Your task to perform on an android device: Go to settings Image 0: 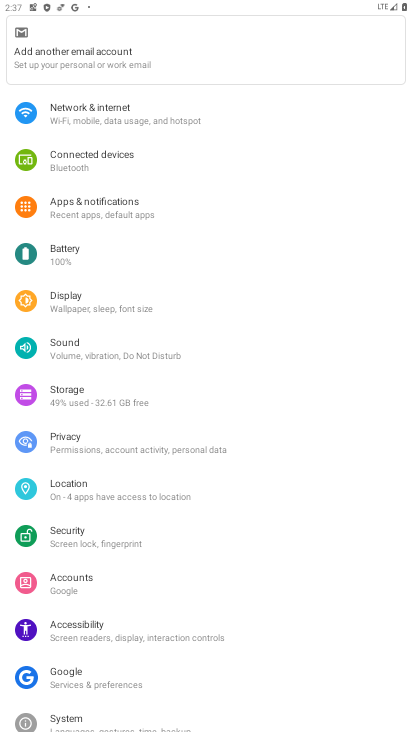
Step 0: press home button
Your task to perform on an android device: Go to settings Image 1: 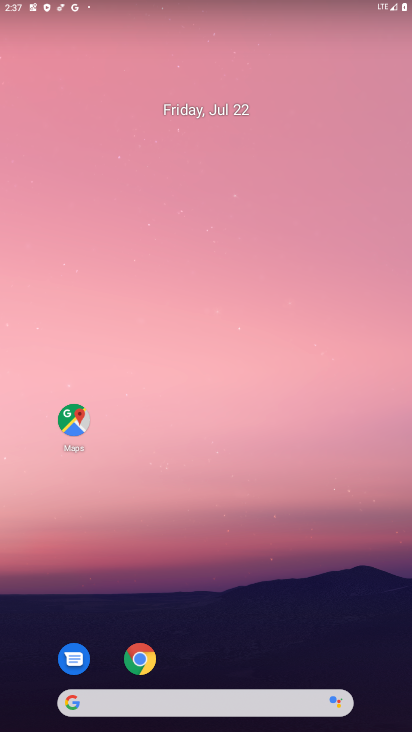
Step 1: drag from (163, 535) to (44, 1)
Your task to perform on an android device: Go to settings Image 2: 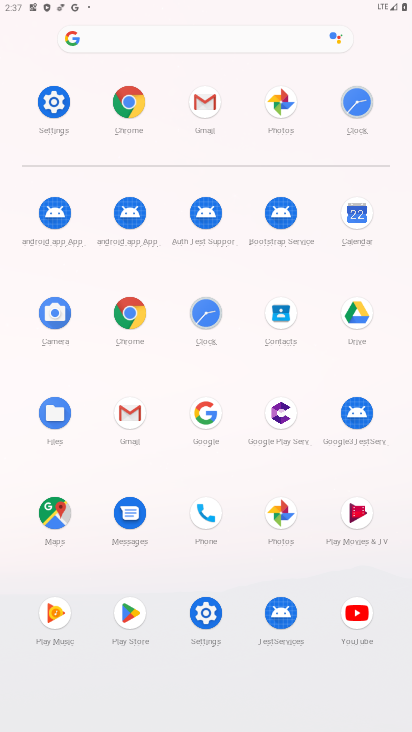
Step 2: click (52, 117)
Your task to perform on an android device: Go to settings Image 3: 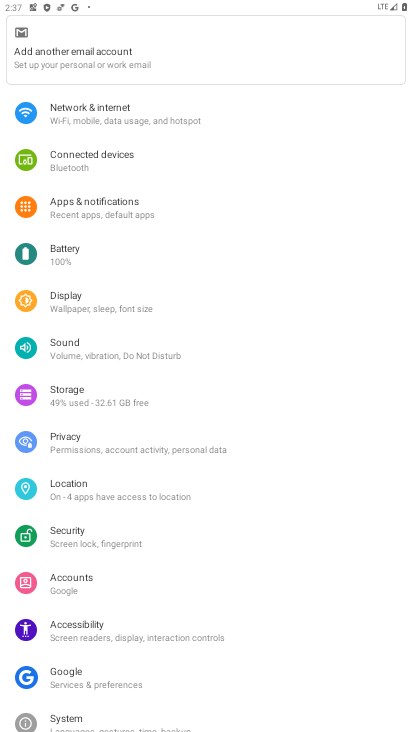
Step 3: task complete